Your task to perform on an android device: Open sound settings Image 0: 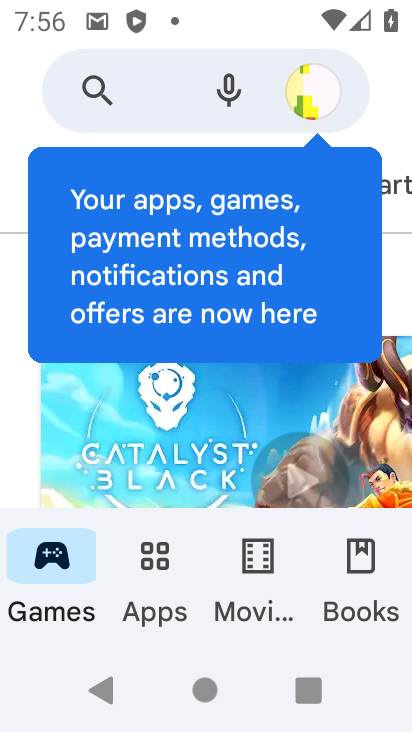
Step 0: press home button
Your task to perform on an android device: Open sound settings Image 1: 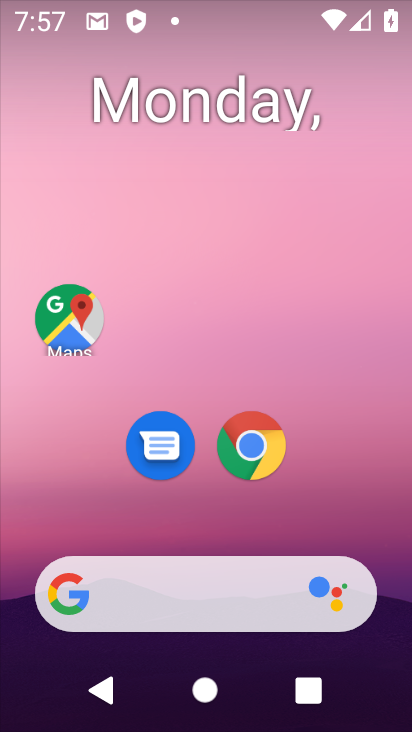
Step 1: drag from (243, 680) to (97, 15)
Your task to perform on an android device: Open sound settings Image 2: 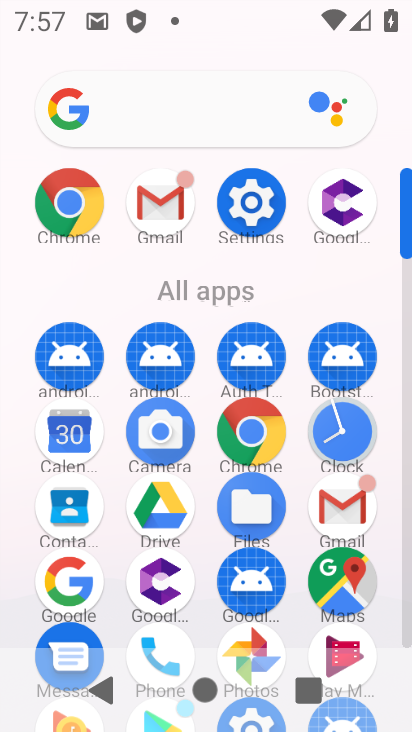
Step 2: click (257, 203)
Your task to perform on an android device: Open sound settings Image 3: 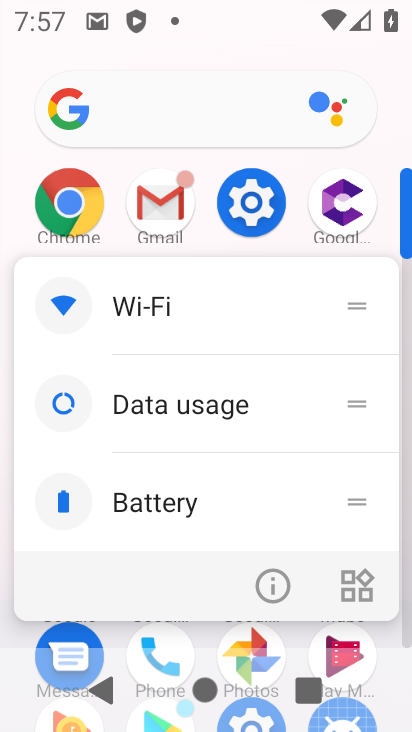
Step 3: click (246, 213)
Your task to perform on an android device: Open sound settings Image 4: 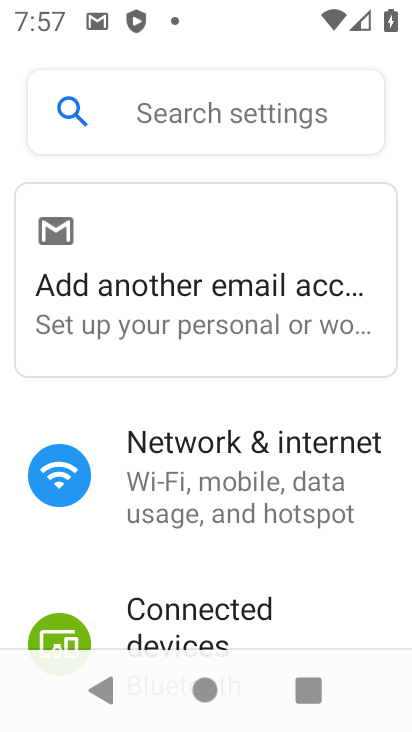
Step 4: drag from (262, 524) to (176, 41)
Your task to perform on an android device: Open sound settings Image 5: 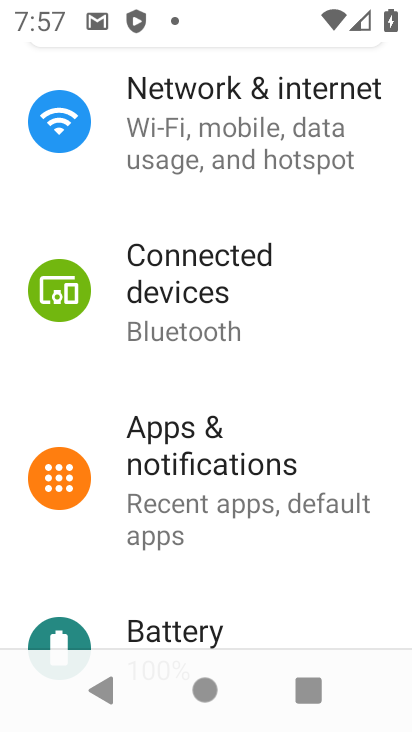
Step 5: drag from (224, 599) to (273, 19)
Your task to perform on an android device: Open sound settings Image 6: 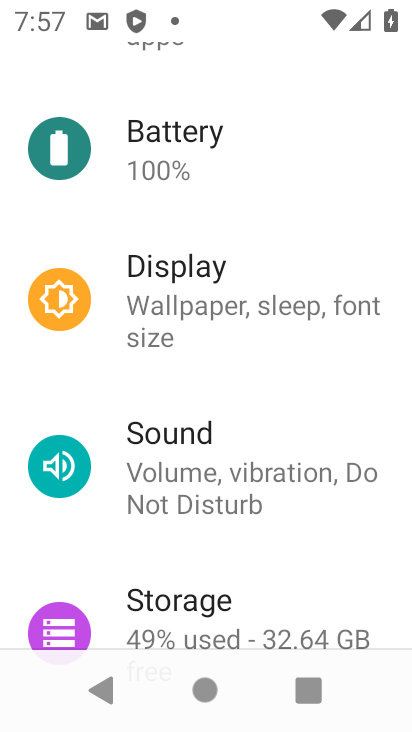
Step 6: click (244, 455)
Your task to perform on an android device: Open sound settings Image 7: 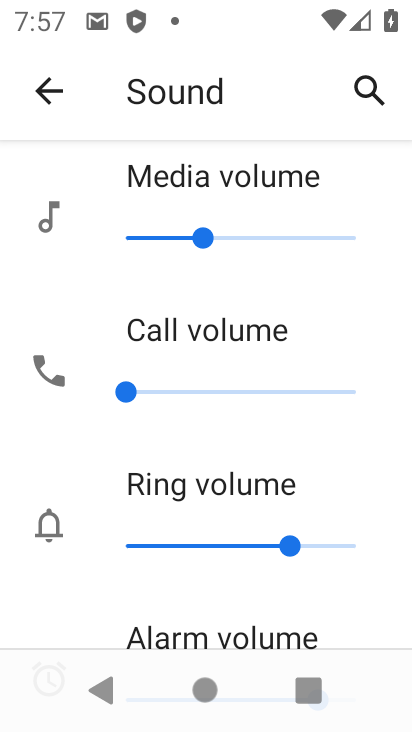
Step 7: task complete